Your task to perform on an android device: refresh tabs in the chrome app Image 0: 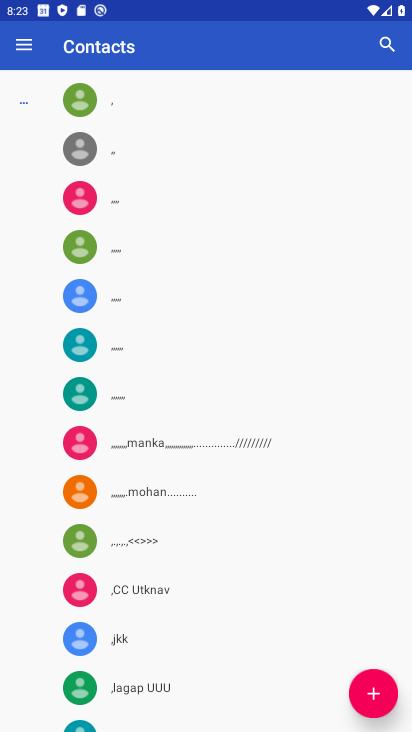
Step 0: press home button
Your task to perform on an android device: refresh tabs in the chrome app Image 1: 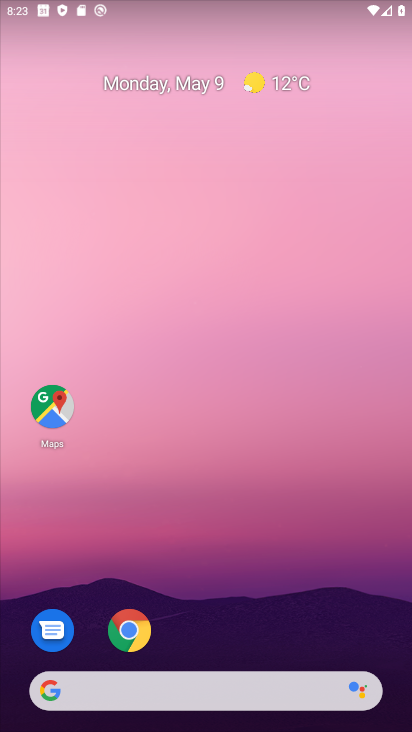
Step 1: click (122, 632)
Your task to perform on an android device: refresh tabs in the chrome app Image 2: 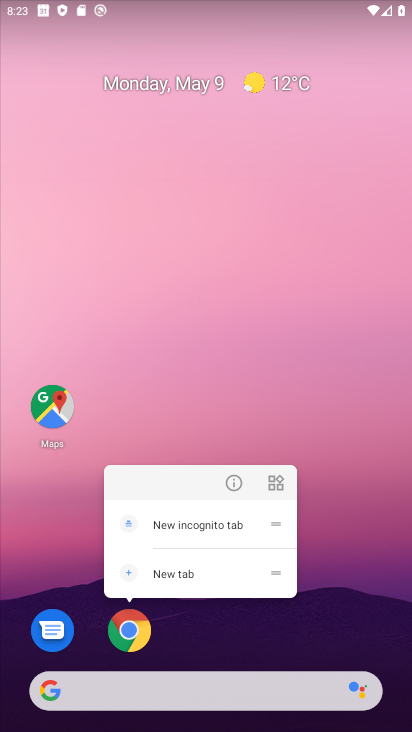
Step 2: click (112, 620)
Your task to perform on an android device: refresh tabs in the chrome app Image 3: 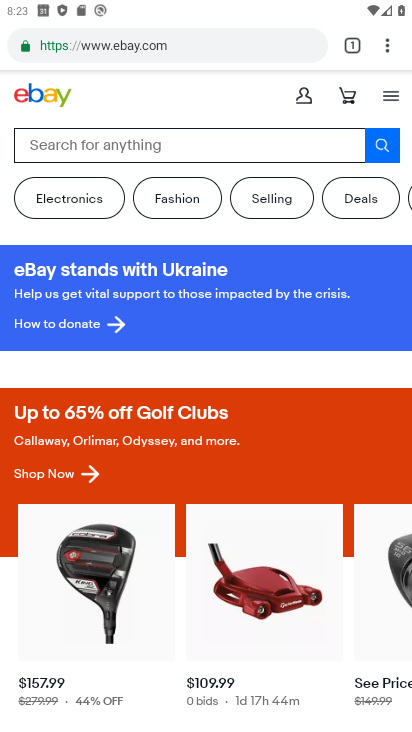
Step 3: click (386, 46)
Your task to perform on an android device: refresh tabs in the chrome app Image 4: 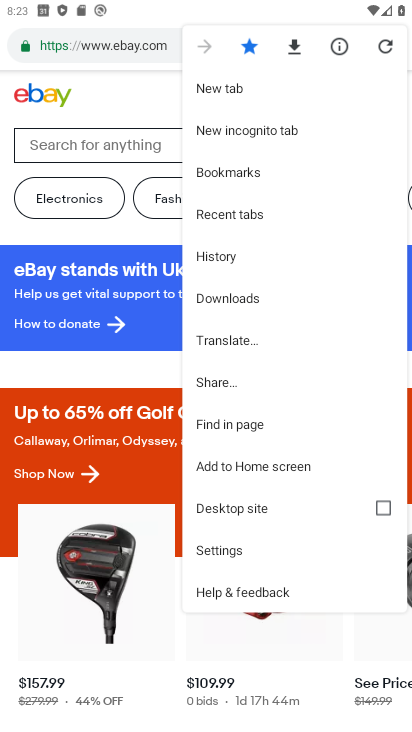
Step 4: click (380, 43)
Your task to perform on an android device: refresh tabs in the chrome app Image 5: 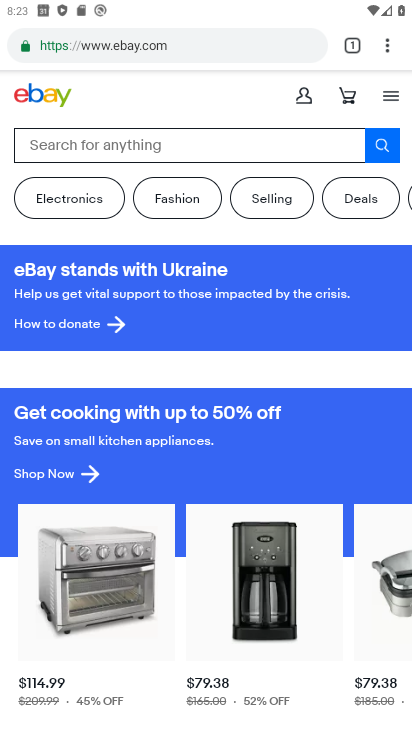
Step 5: task complete